Your task to perform on an android device: Search for sushi restaurants on Maps Image 0: 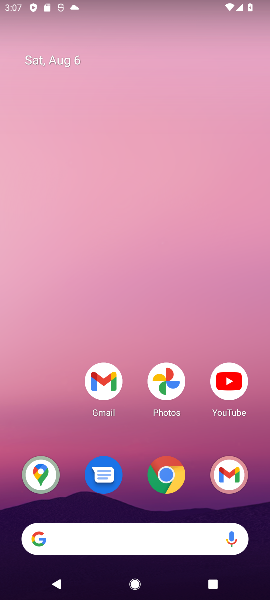
Step 0: click (42, 482)
Your task to perform on an android device: Search for sushi restaurants on Maps Image 1: 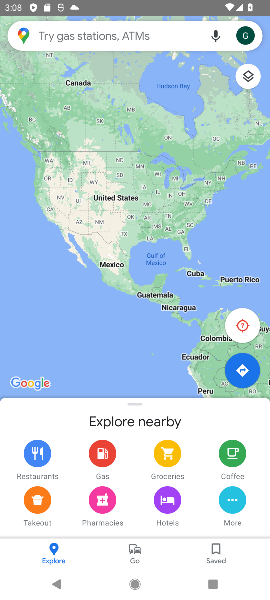
Step 1: click (46, 36)
Your task to perform on an android device: Search for sushi restaurants on Maps Image 2: 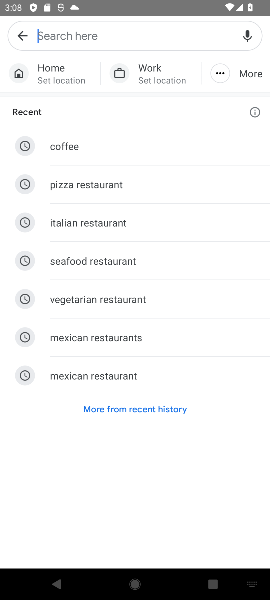
Step 2: type "sushi restaurants"
Your task to perform on an android device: Search for sushi restaurants on Maps Image 3: 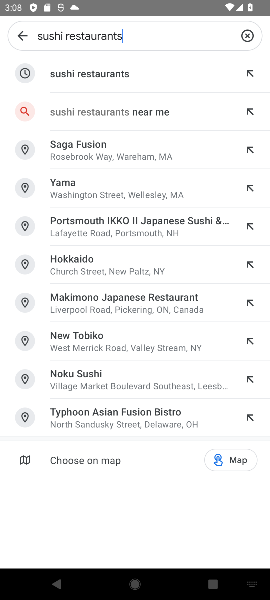
Step 3: click (113, 75)
Your task to perform on an android device: Search for sushi restaurants on Maps Image 4: 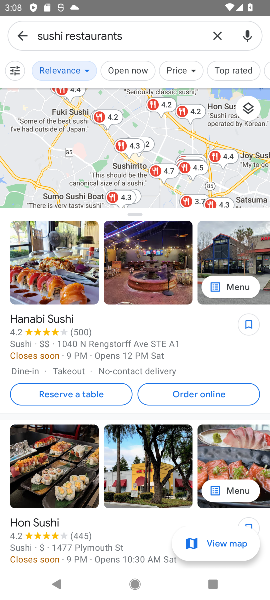
Step 4: task complete